Your task to perform on an android device: Do I have any events tomorrow? Image 0: 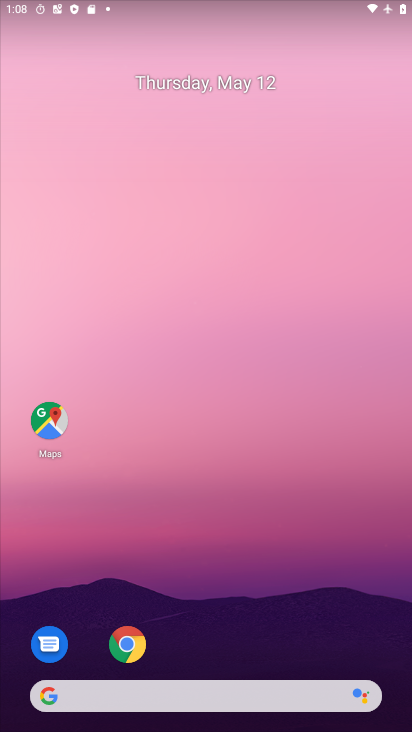
Step 0: click (190, 81)
Your task to perform on an android device: Do I have any events tomorrow? Image 1: 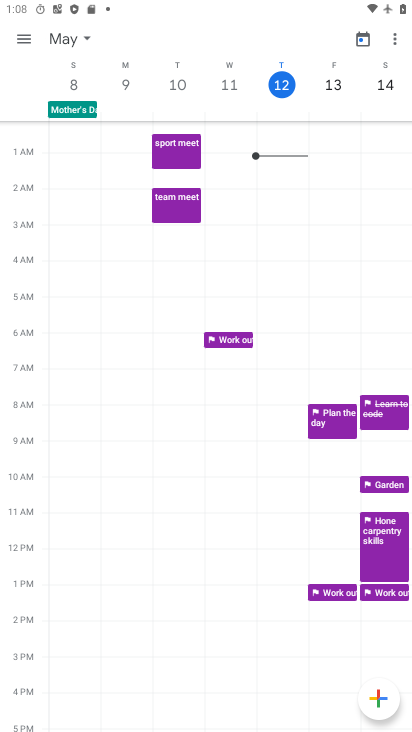
Step 1: task complete